Your task to perform on an android device: Go to Google Image 0: 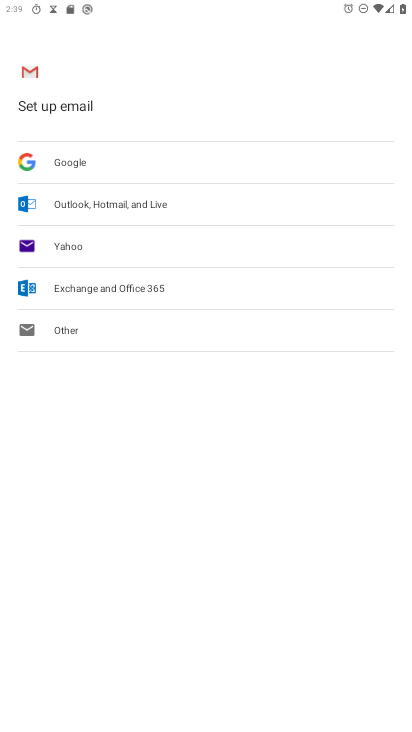
Step 0: press home button
Your task to perform on an android device: Go to Google Image 1: 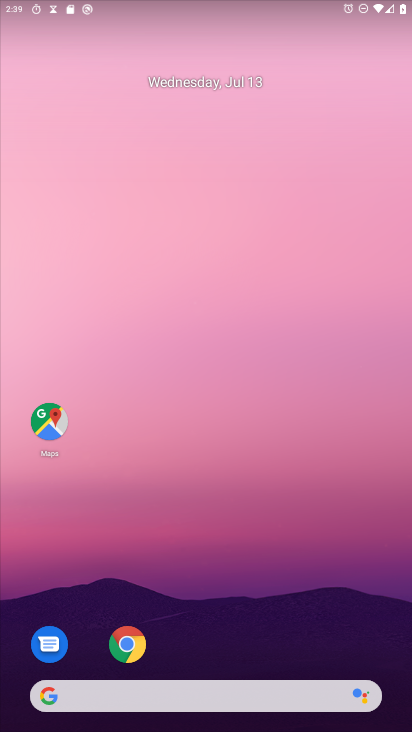
Step 1: drag from (293, 600) to (368, 31)
Your task to perform on an android device: Go to Google Image 2: 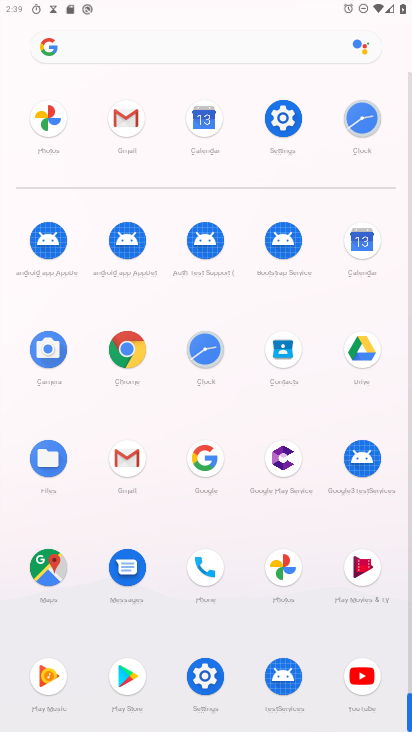
Step 2: click (205, 464)
Your task to perform on an android device: Go to Google Image 3: 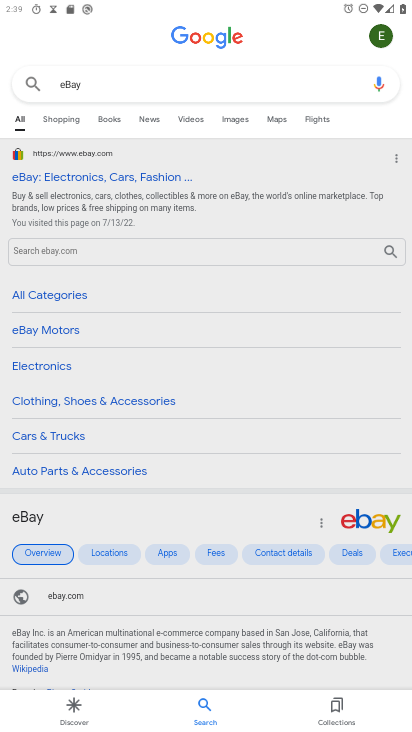
Step 3: click (196, 36)
Your task to perform on an android device: Go to Google Image 4: 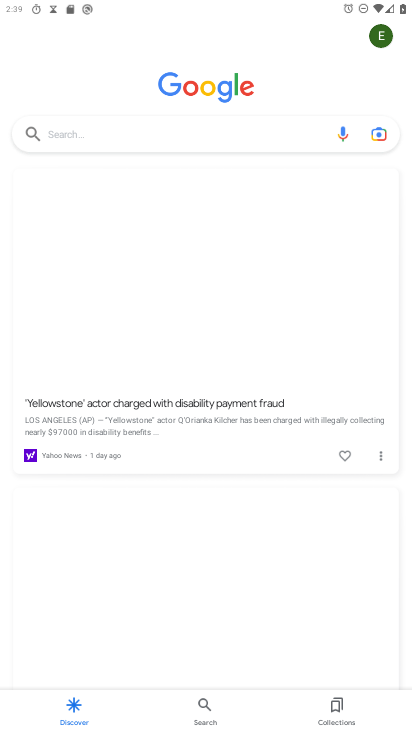
Step 4: task complete